Your task to perform on an android device: When is my next meeting? Image 0: 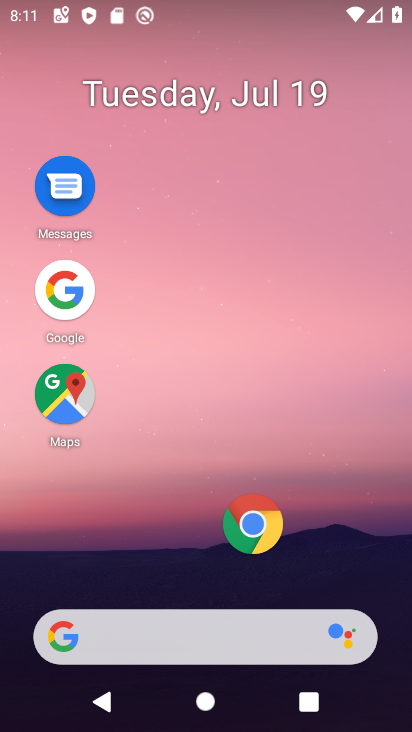
Step 0: drag from (208, 586) to (96, 83)
Your task to perform on an android device: When is my next meeting? Image 1: 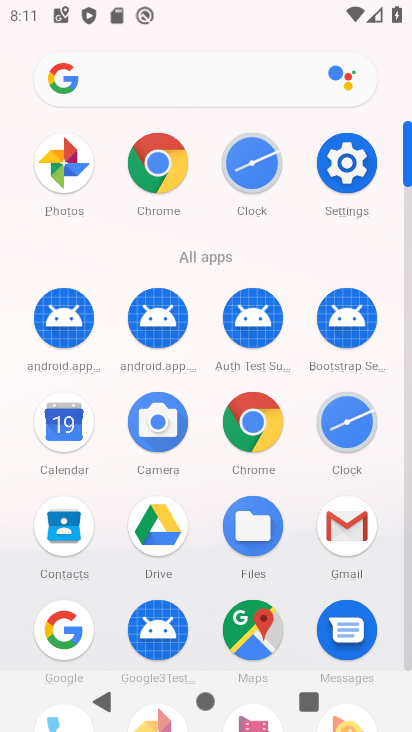
Step 1: click (67, 440)
Your task to perform on an android device: When is my next meeting? Image 2: 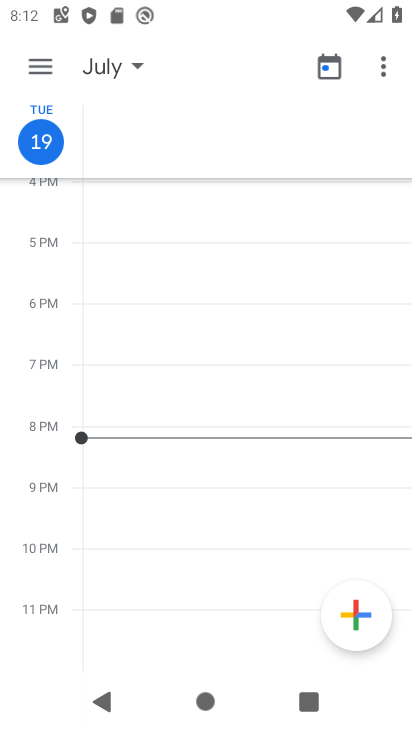
Step 2: click (327, 61)
Your task to perform on an android device: When is my next meeting? Image 3: 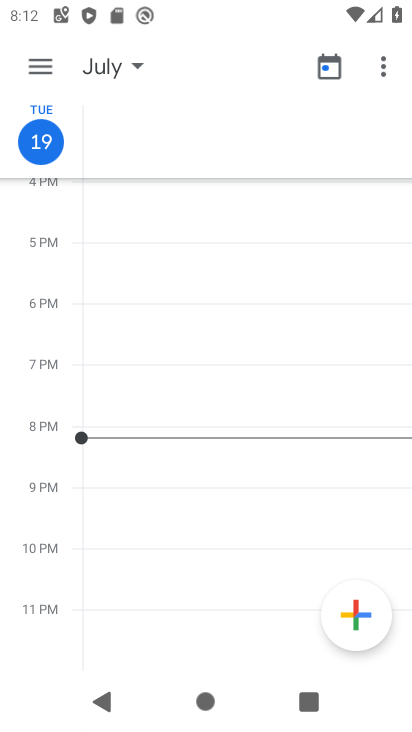
Step 3: click (327, 69)
Your task to perform on an android device: When is my next meeting? Image 4: 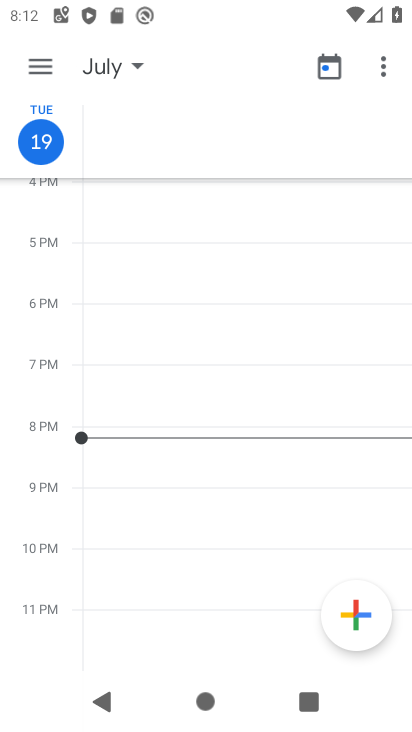
Step 4: click (327, 69)
Your task to perform on an android device: When is my next meeting? Image 5: 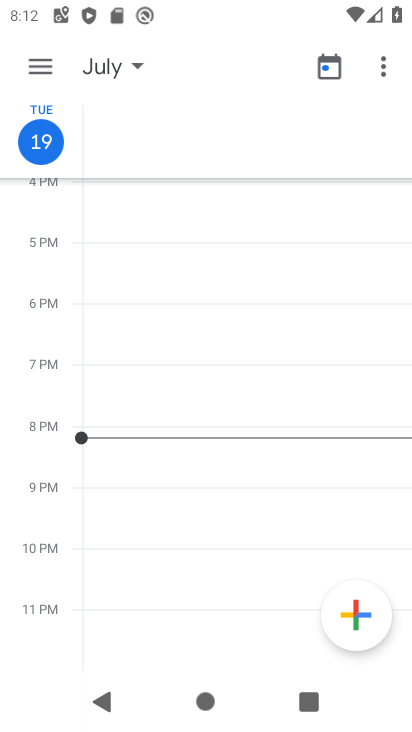
Step 5: click (327, 69)
Your task to perform on an android device: When is my next meeting? Image 6: 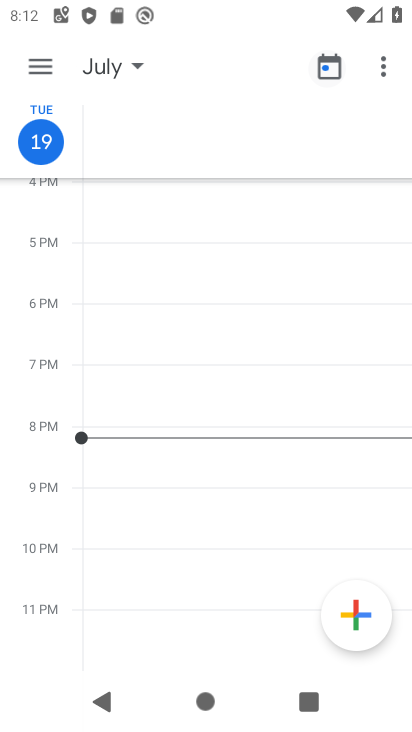
Step 6: click (327, 69)
Your task to perform on an android device: When is my next meeting? Image 7: 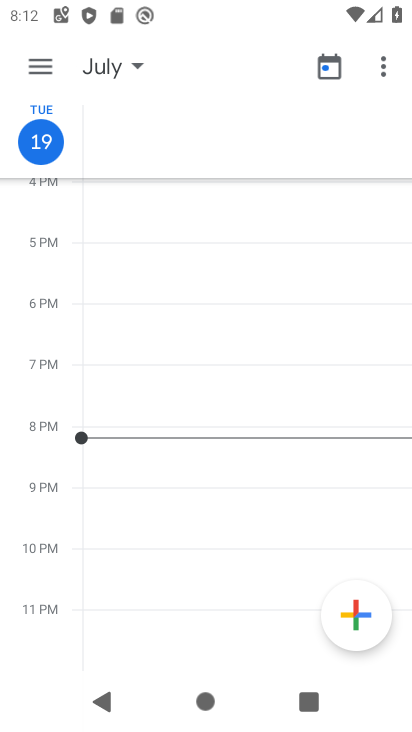
Step 7: click (35, 76)
Your task to perform on an android device: When is my next meeting? Image 8: 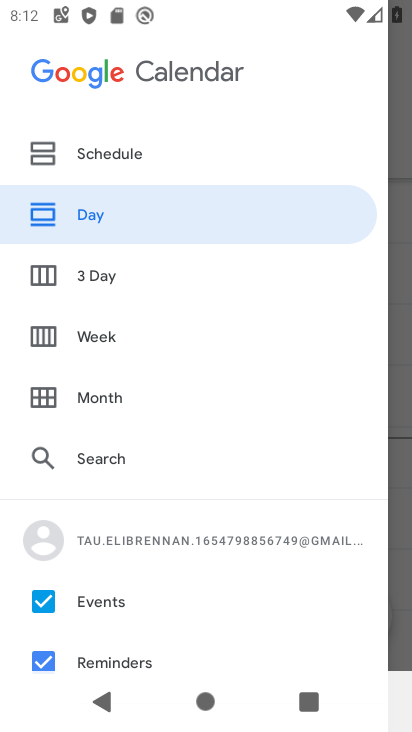
Step 8: click (100, 395)
Your task to perform on an android device: When is my next meeting? Image 9: 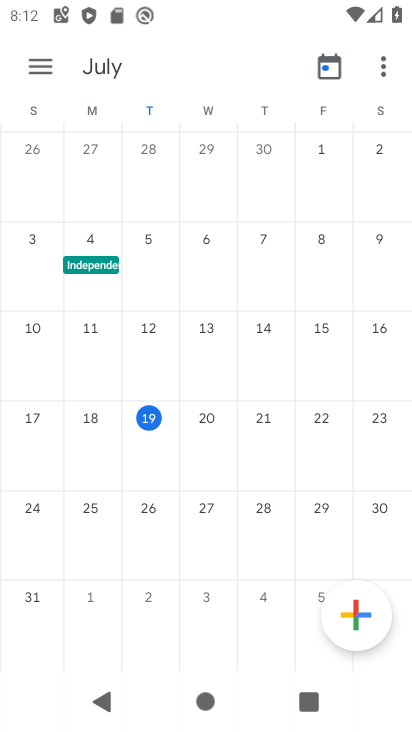
Step 9: drag from (202, 509) to (170, 248)
Your task to perform on an android device: When is my next meeting? Image 10: 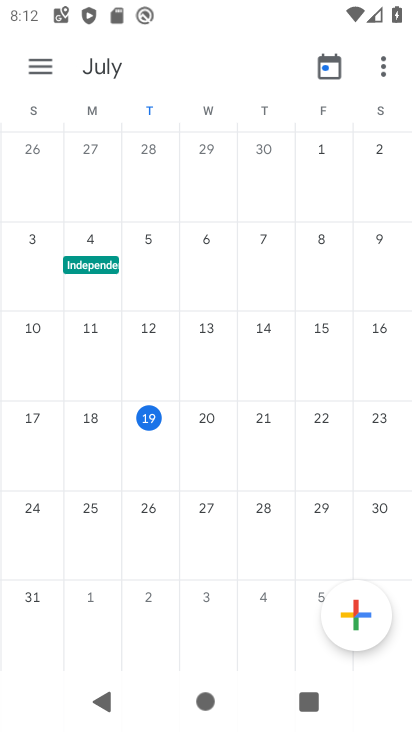
Step 10: drag from (368, 295) to (98, 354)
Your task to perform on an android device: When is my next meeting? Image 11: 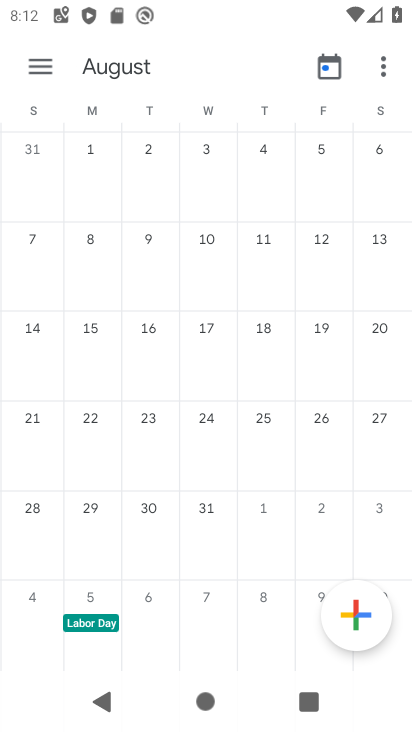
Step 11: click (383, 67)
Your task to perform on an android device: When is my next meeting? Image 12: 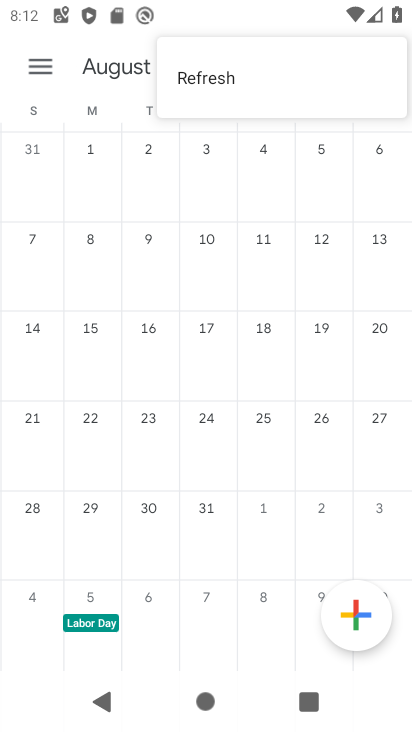
Step 12: click (283, 81)
Your task to perform on an android device: When is my next meeting? Image 13: 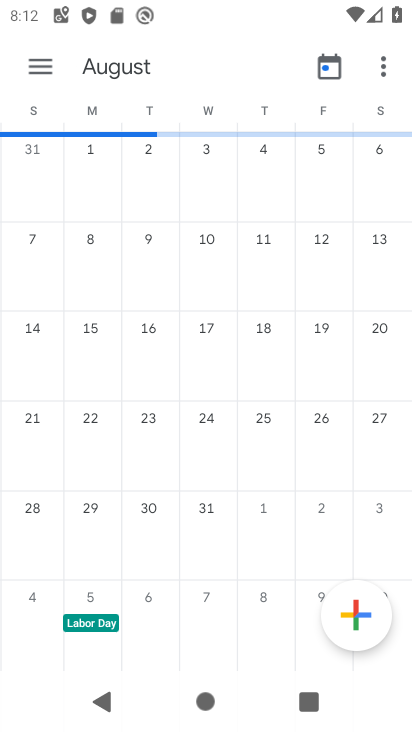
Step 13: click (30, 59)
Your task to perform on an android device: When is my next meeting? Image 14: 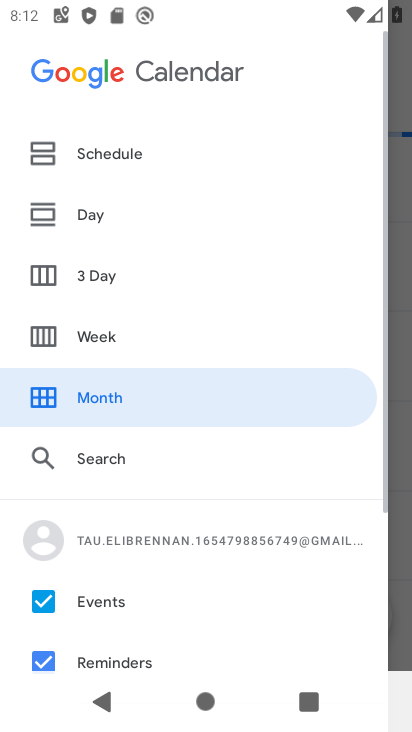
Step 14: drag from (176, 470) to (116, 556)
Your task to perform on an android device: When is my next meeting? Image 15: 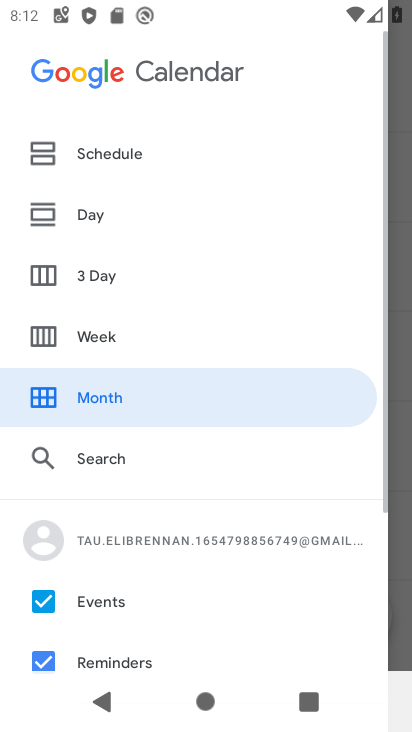
Step 15: click (81, 152)
Your task to perform on an android device: When is my next meeting? Image 16: 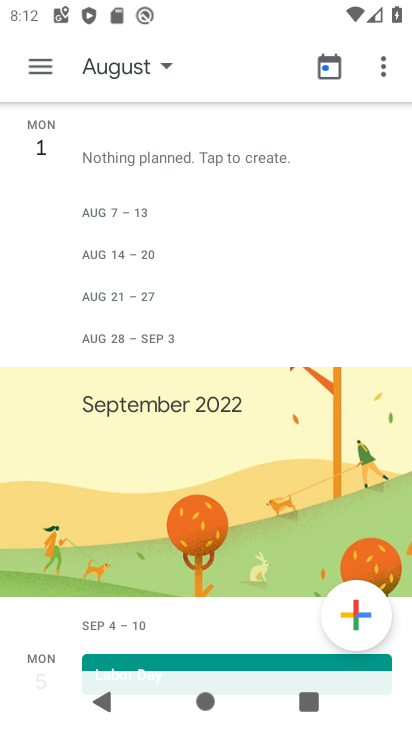
Step 16: task complete